Your task to perform on an android device: Open privacy settings Image 0: 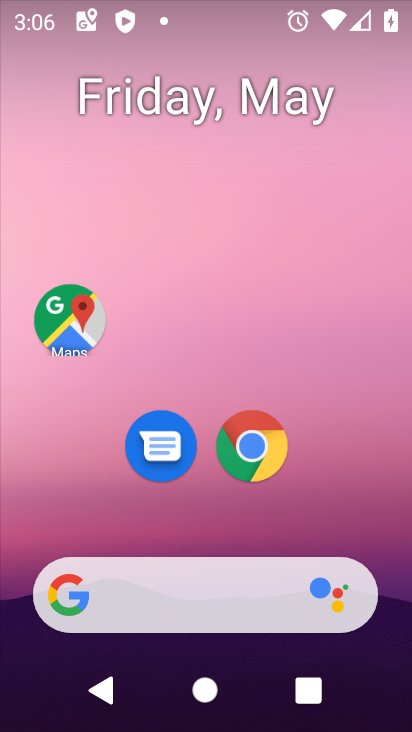
Step 0: drag from (394, 571) to (301, 63)
Your task to perform on an android device: Open privacy settings Image 1: 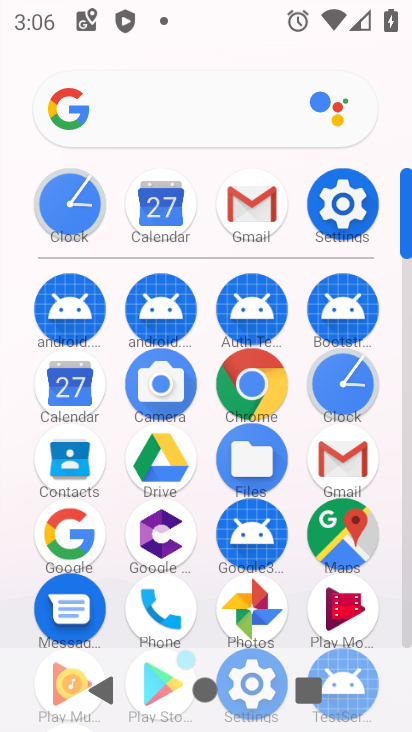
Step 1: click (338, 207)
Your task to perform on an android device: Open privacy settings Image 2: 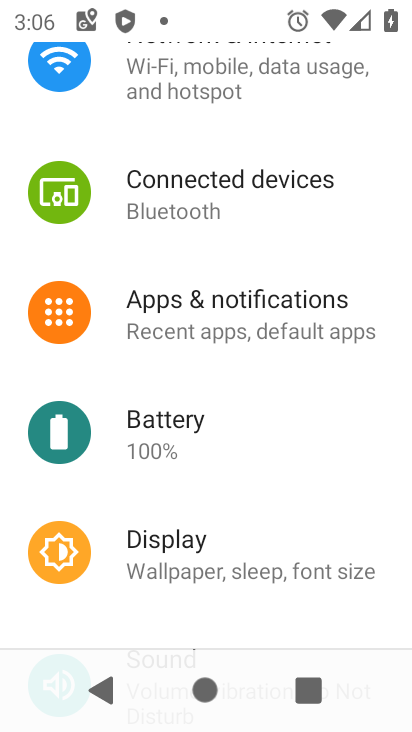
Step 2: drag from (236, 598) to (224, 234)
Your task to perform on an android device: Open privacy settings Image 3: 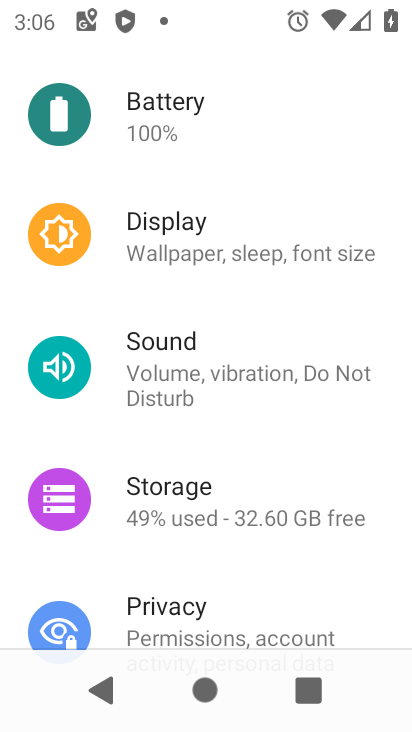
Step 3: click (245, 619)
Your task to perform on an android device: Open privacy settings Image 4: 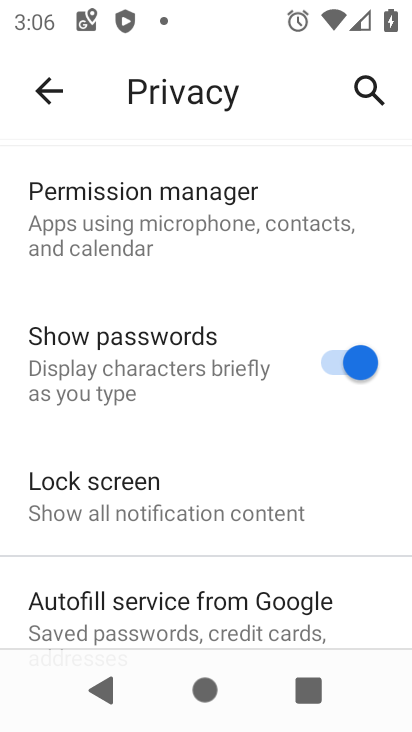
Step 4: task complete